Your task to perform on an android device: toggle show notifications on the lock screen Image 0: 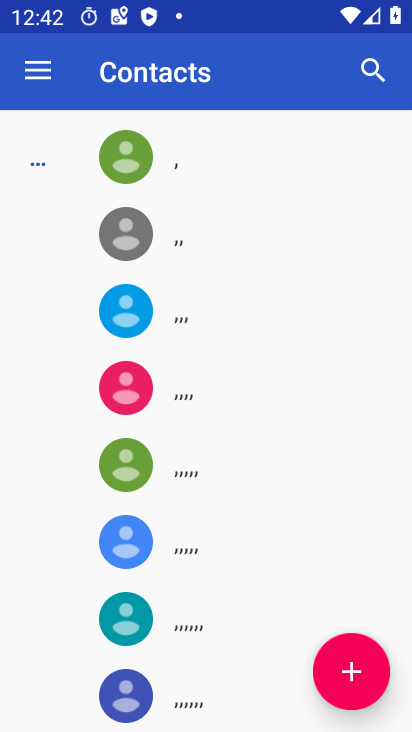
Step 0: press home button
Your task to perform on an android device: toggle show notifications on the lock screen Image 1: 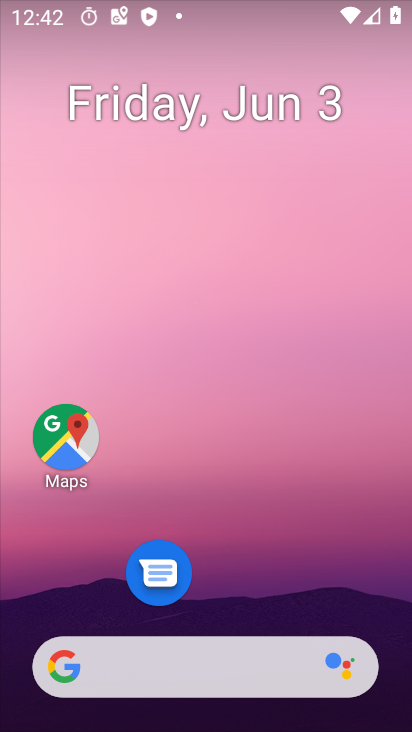
Step 1: drag from (150, 597) to (264, 74)
Your task to perform on an android device: toggle show notifications on the lock screen Image 2: 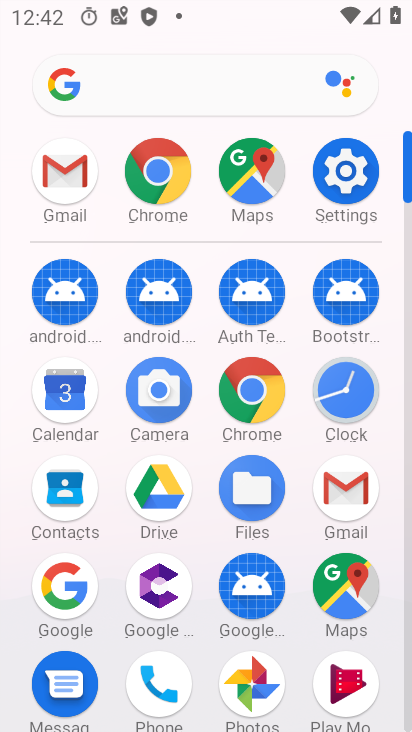
Step 2: click (369, 173)
Your task to perform on an android device: toggle show notifications on the lock screen Image 3: 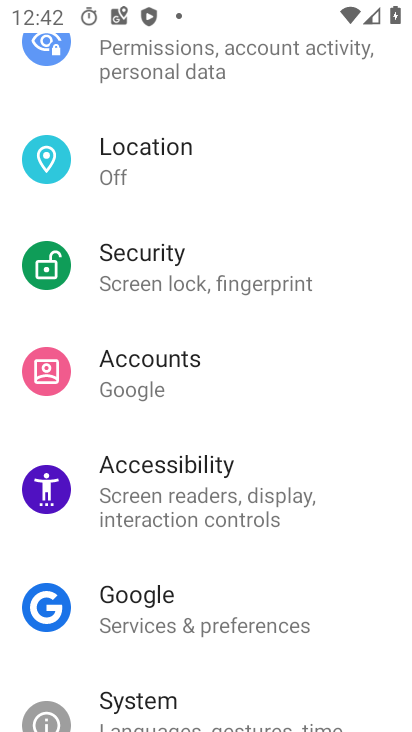
Step 3: drag from (175, 122) to (113, 576)
Your task to perform on an android device: toggle show notifications on the lock screen Image 4: 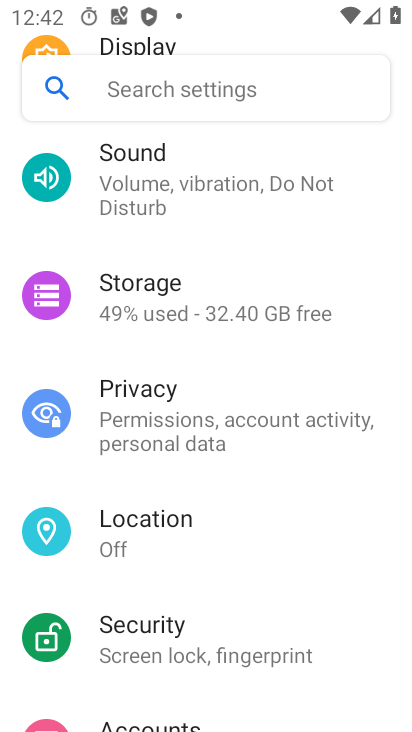
Step 4: drag from (231, 236) to (215, 598)
Your task to perform on an android device: toggle show notifications on the lock screen Image 5: 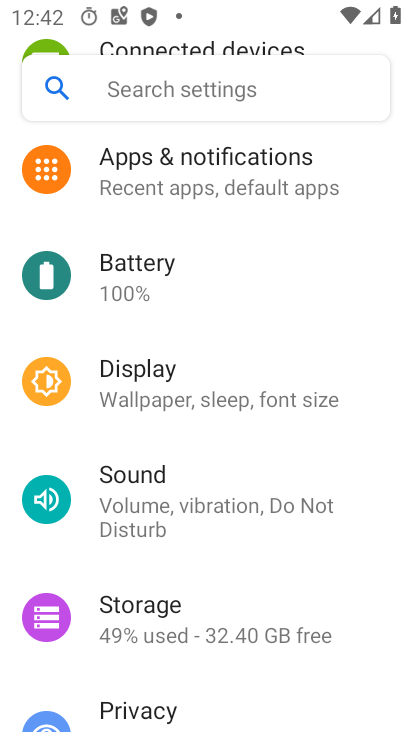
Step 5: drag from (265, 299) to (224, 637)
Your task to perform on an android device: toggle show notifications on the lock screen Image 6: 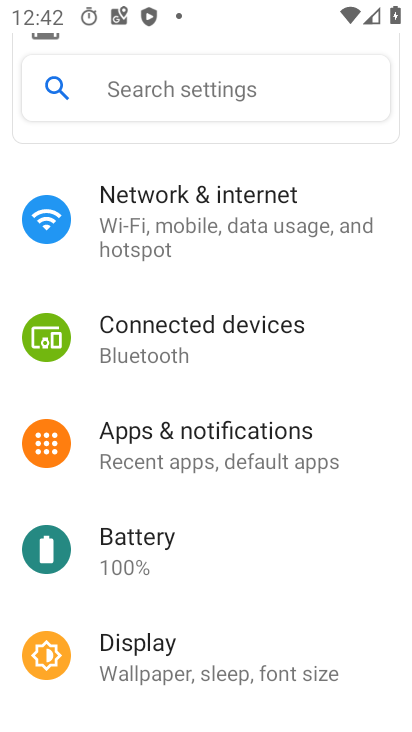
Step 6: click (263, 459)
Your task to perform on an android device: toggle show notifications on the lock screen Image 7: 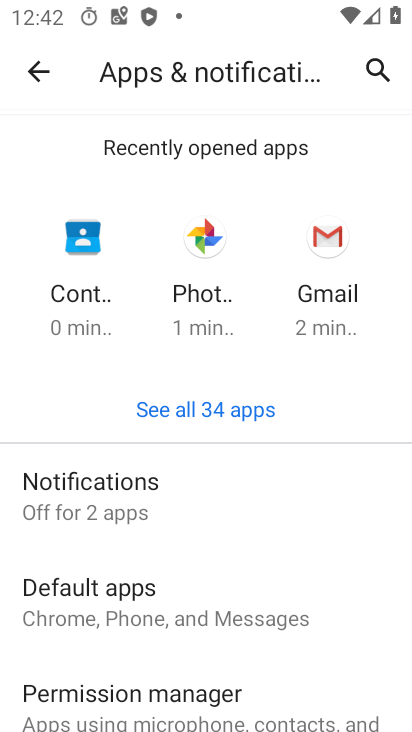
Step 7: drag from (150, 679) to (156, 380)
Your task to perform on an android device: toggle show notifications on the lock screen Image 8: 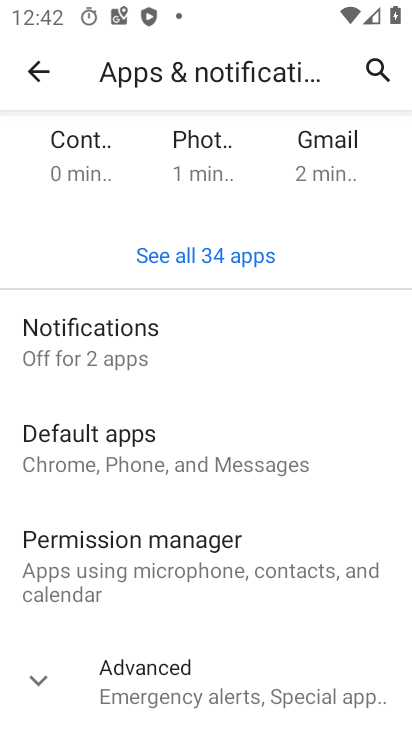
Step 8: click (107, 338)
Your task to perform on an android device: toggle show notifications on the lock screen Image 9: 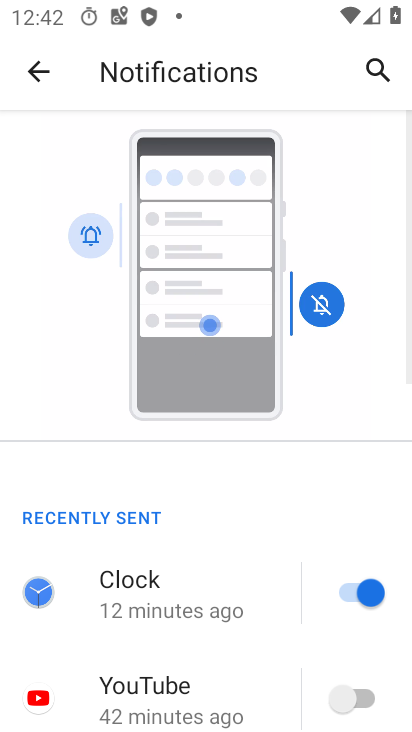
Step 9: drag from (174, 618) to (190, 120)
Your task to perform on an android device: toggle show notifications on the lock screen Image 10: 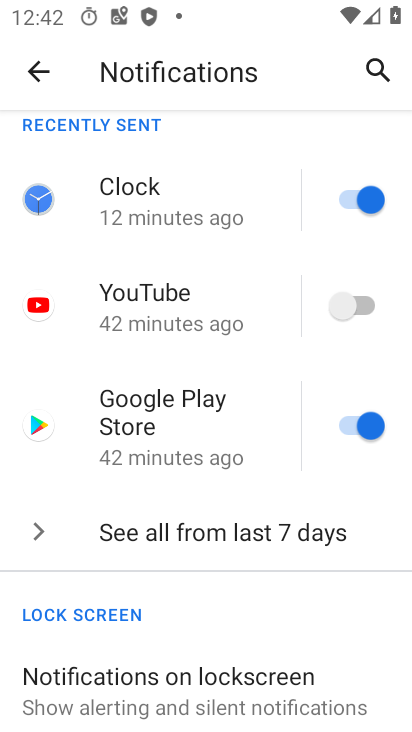
Step 10: click (214, 698)
Your task to perform on an android device: toggle show notifications on the lock screen Image 11: 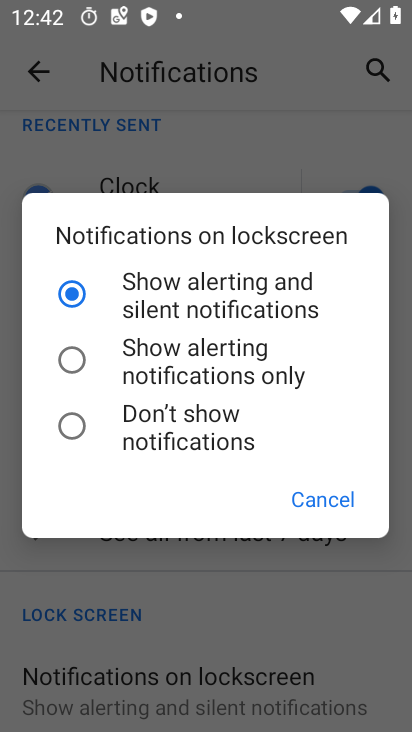
Step 11: click (59, 357)
Your task to perform on an android device: toggle show notifications on the lock screen Image 12: 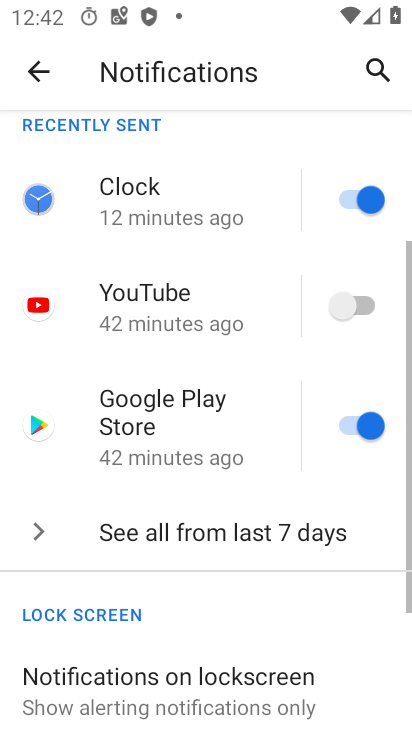
Step 12: task complete